Your task to perform on an android device: Go to battery settings Image 0: 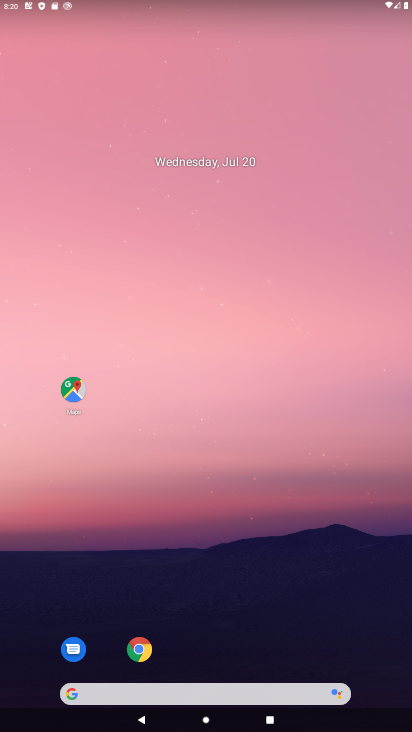
Step 0: drag from (224, 689) to (270, 85)
Your task to perform on an android device: Go to battery settings Image 1: 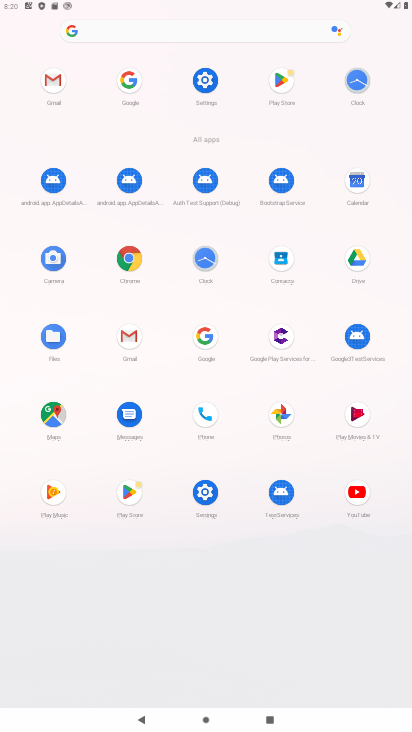
Step 1: click (204, 81)
Your task to perform on an android device: Go to battery settings Image 2: 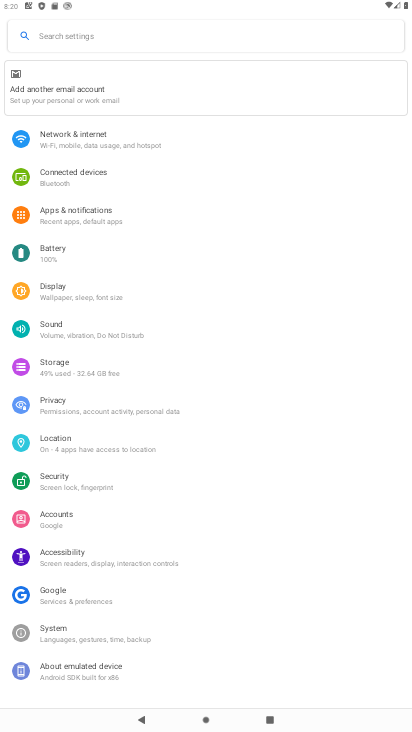
Step 2: click (55, 257)
Your task to perform on an android device: Go to battery settings Image 3: 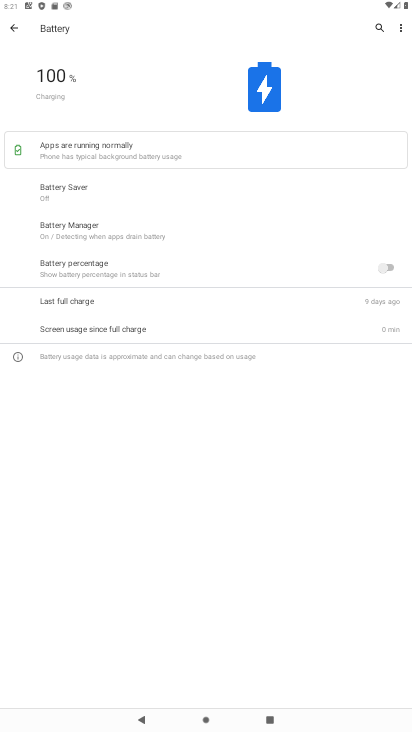
Step 3: task complete